Your task to perform on an android device: Clear the cart on bestbuy. Search for "usb-a" on bestbuy, select the first entry, and add it to the cart. Image 0: 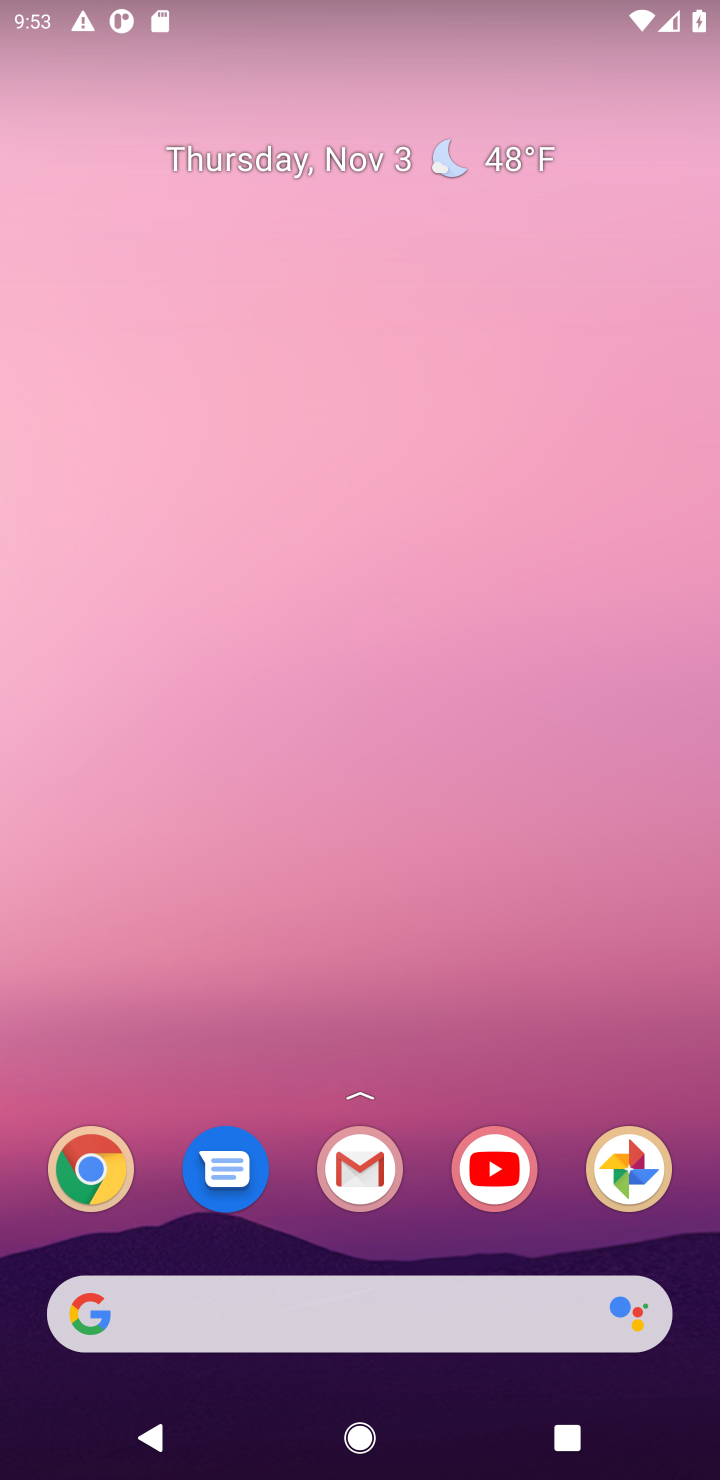
Step 0: drag from (431, 1263) to (453, 257)
Your task to perform on an android device: Clear the cart on bestbuy. Search for "usb-a" on bestbuy, select the first entry, and add it to the cart. Image 1: 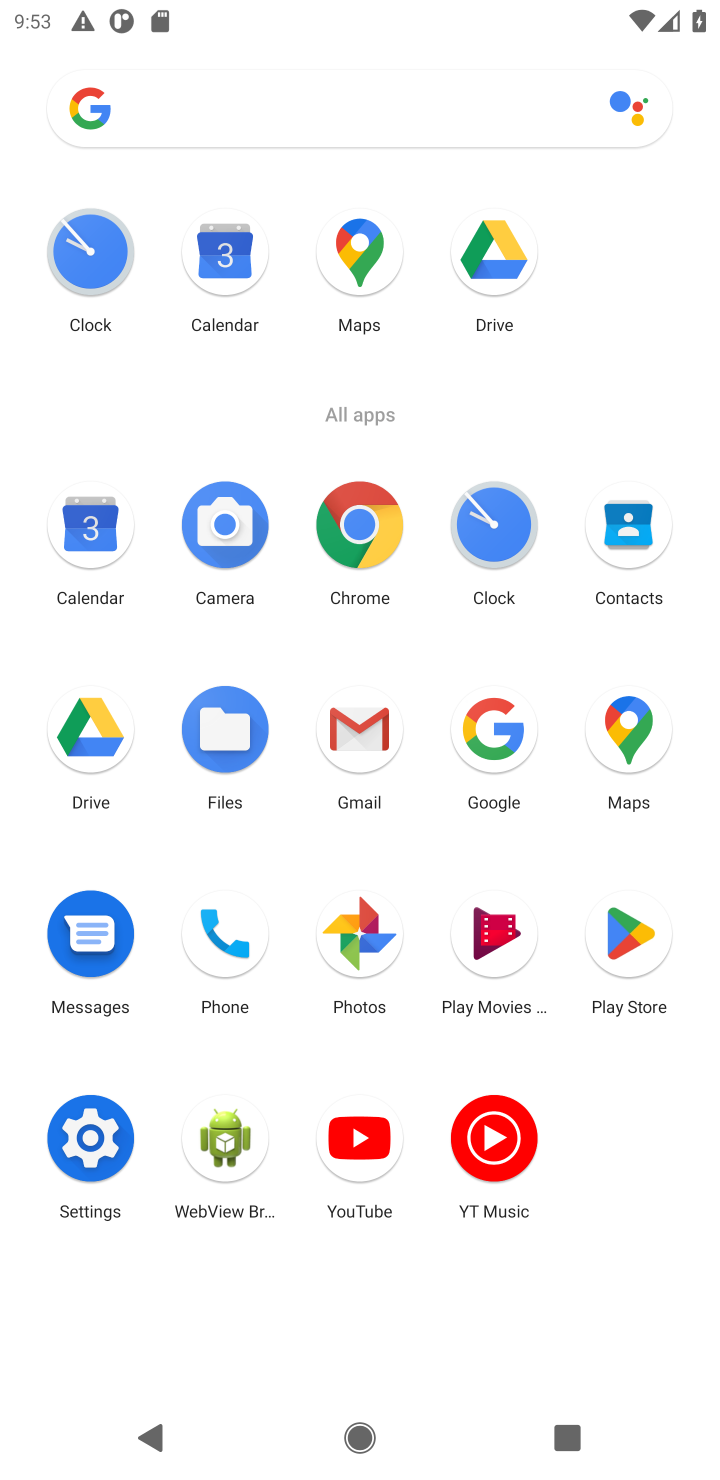
Step 1: click (354, 527)
Your task to perform on an android device: Clear the cart on bestbuy. Search for "usb-a" on bestbuy, select the first entry, and add it to the cart. Image 2: 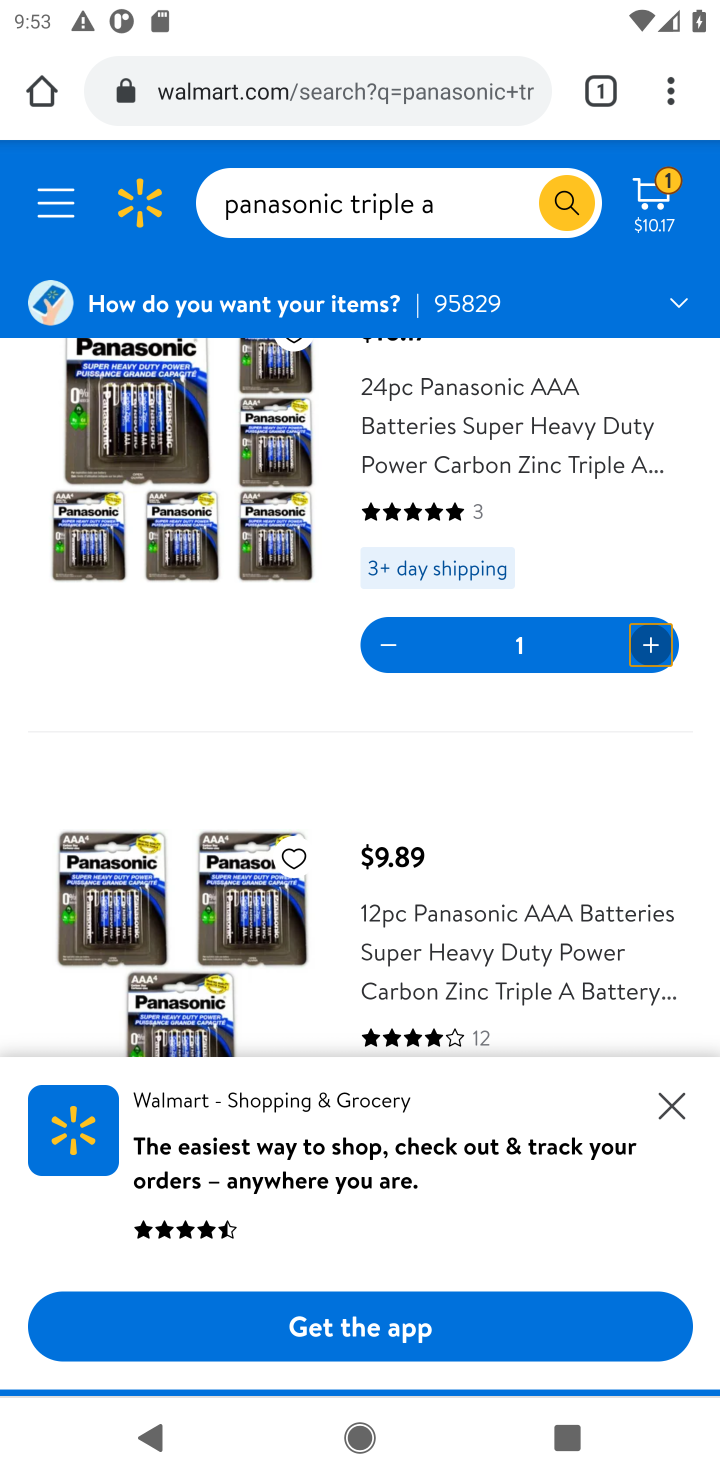
Step 2: click (345, 104)
Your task to perform on an android device: Clear the cart on bestbuy. Search for "usb-a" on bestbuy, select the first entry, and add it to the cart. Image 3: 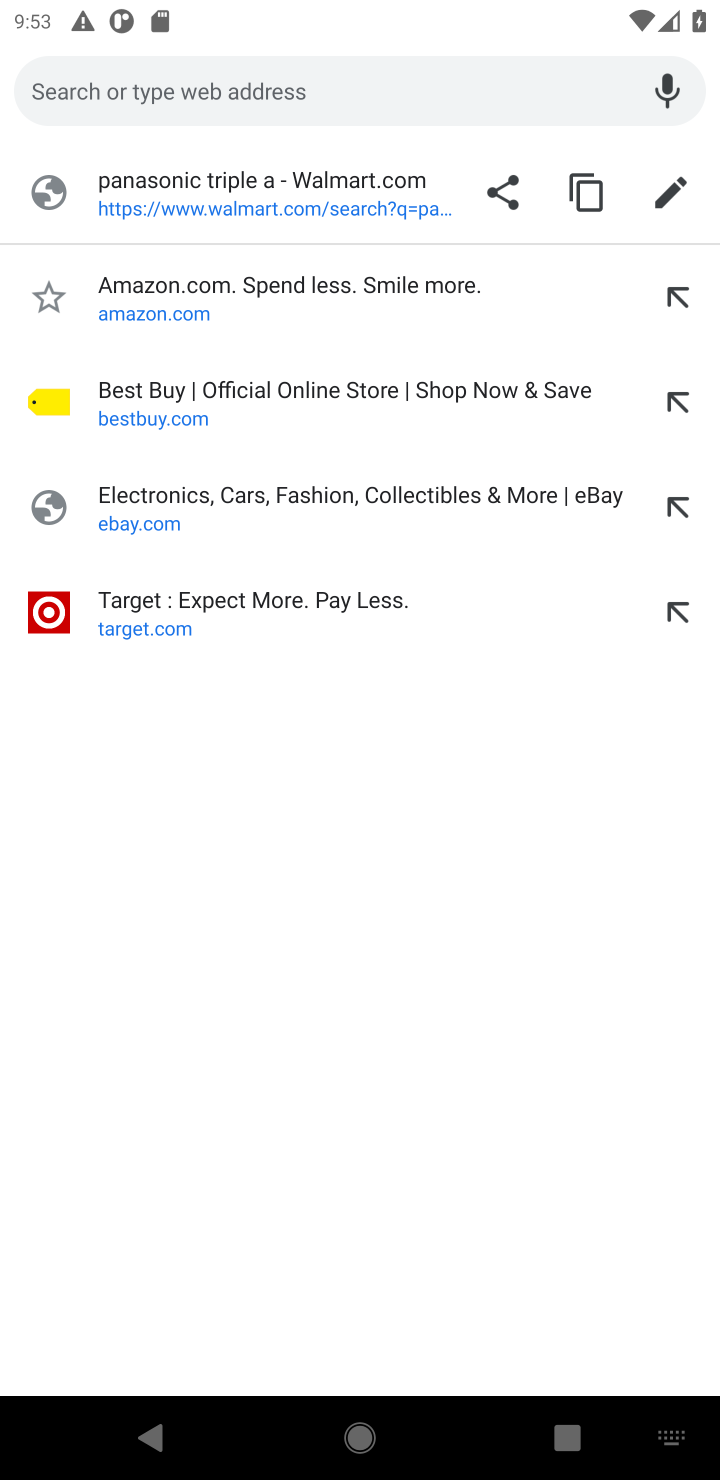
Step 3: type "bestbuy.com"
Your task to perform on an android device: Clear the cart on bestbuy. Search for "usb-a" on bestbuy, select the first entry, and add it to the cart. Image 4: 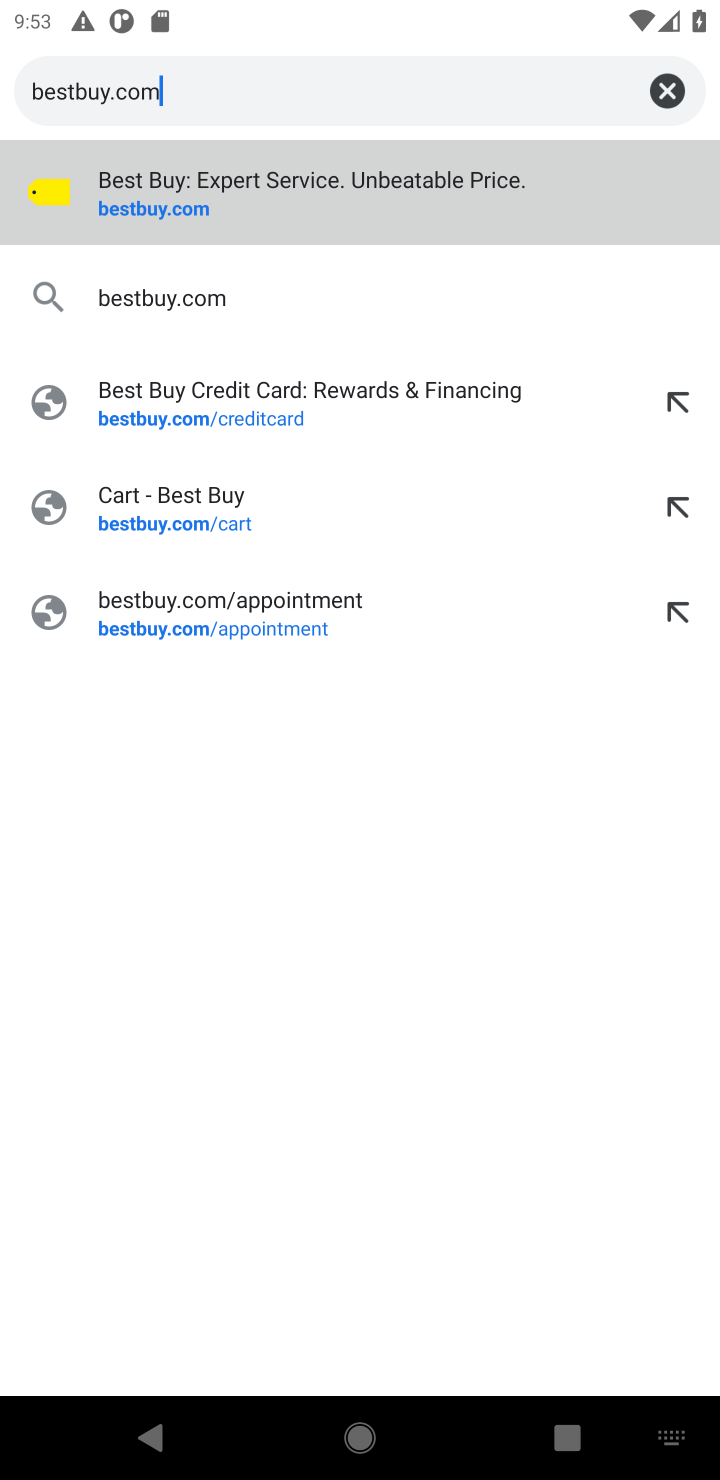
Step 4: press enter
Your task to perform on an android device: Clear the cart on bestbuy. Search for "usb-a" on bestbuy, select the first entry, and add it to the cart. Image 5: 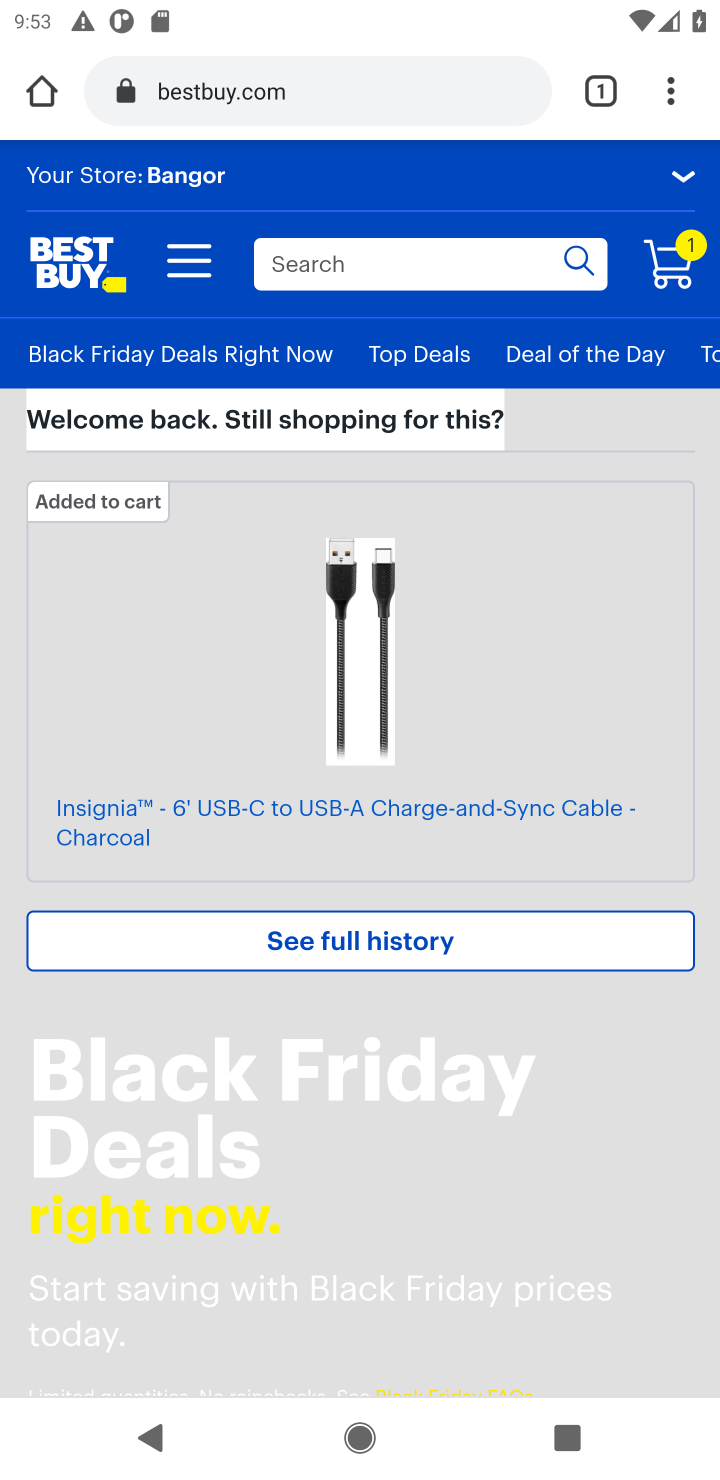
Step 5: click (681, 244)
Your task to perform on an android device: Clear the cart on bestbuy. Search for "usb-a" on bestbuy, select the first entry, and add it to the cart. Image 6: 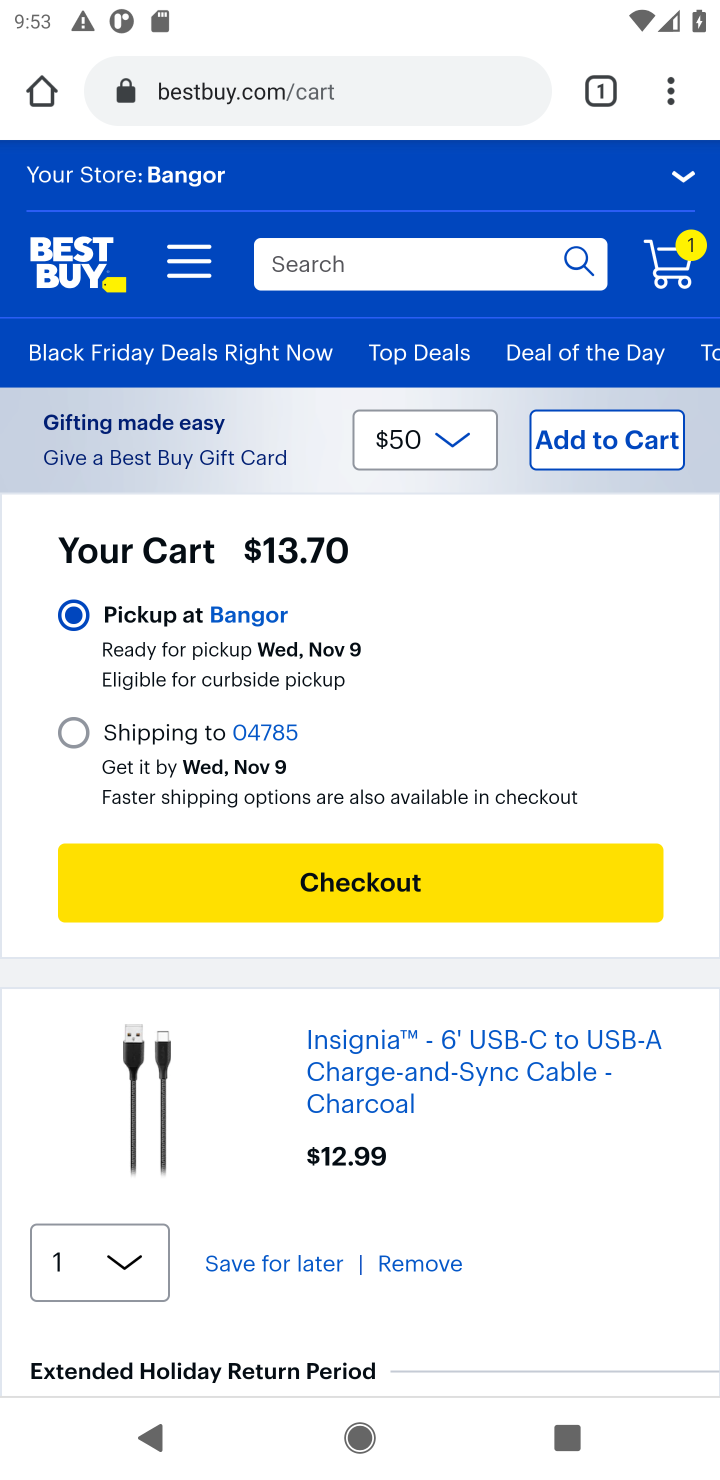
Step 6: drag from (489, 1209) to (529, 921)
Your task to perform on an android device: Clear the cart on bestbuy. Search for "usb-a" on bestbuy, select the first entry, and add it to the cart. Image 7: 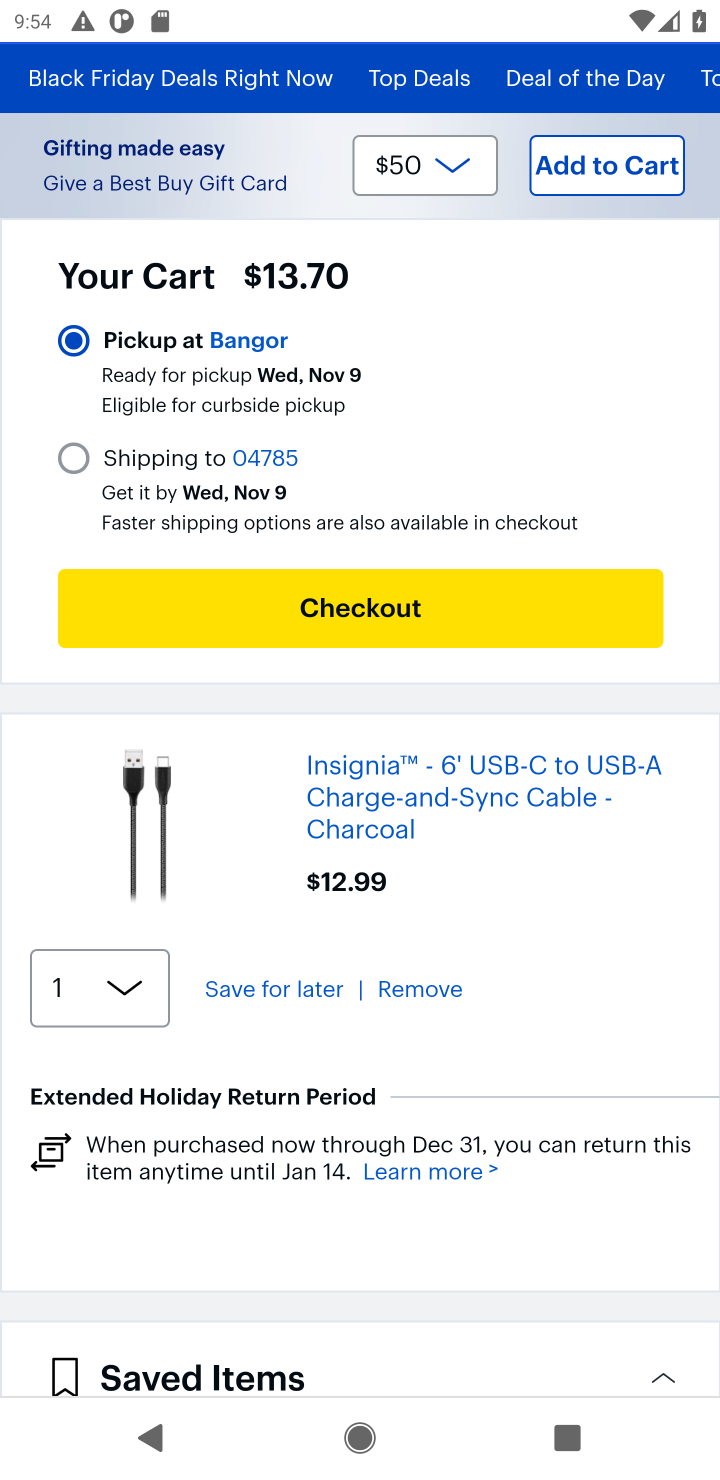
Step 7: click (399, 995)
Your task to perform on an android device: Clear the cart on bestbuy. Search for "usb-a" on bestbuy, select the first entry, and add it to the cart. Image 8: 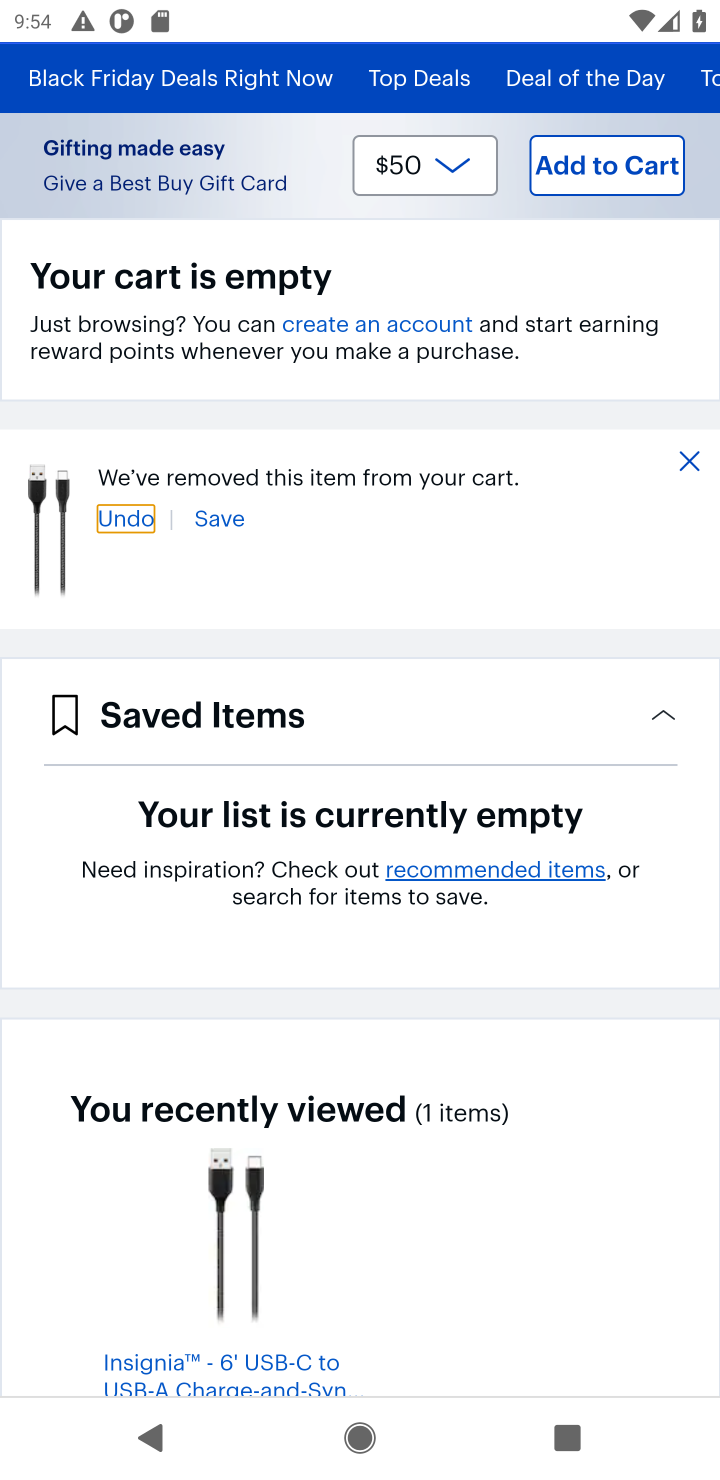
Step 8: drag from (511, 319) to (532, 1130)
Your task to perform on an android device: Clear the cart on bestbuy. Search for "usb-a" on bestbuy, select the first entry, and add it to the cart. Image 9: 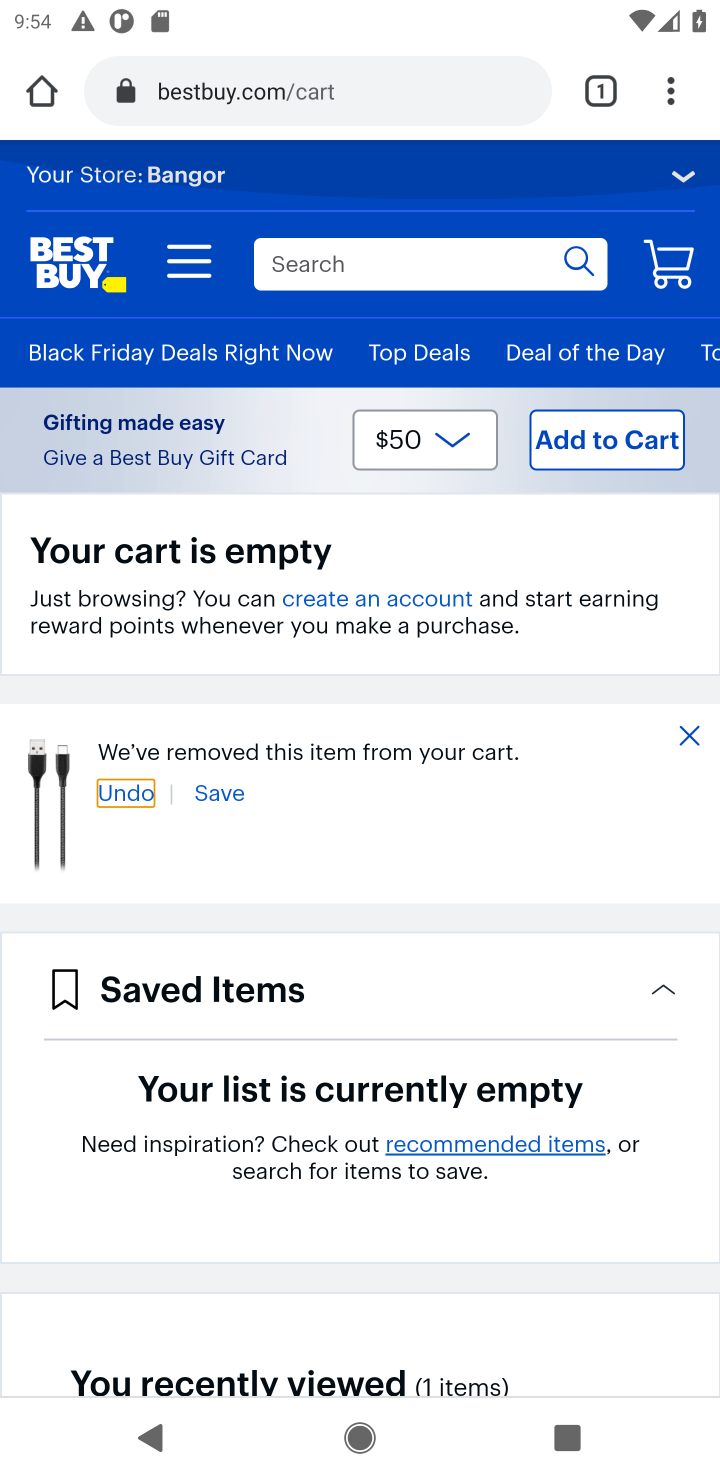
Step 9: click (459, 261)
Your task to perform on an android device: Clear the cart on bestbuy. Search for "usb-a" on bestbuy, select the first entry, and add it to the cart. Image 10: 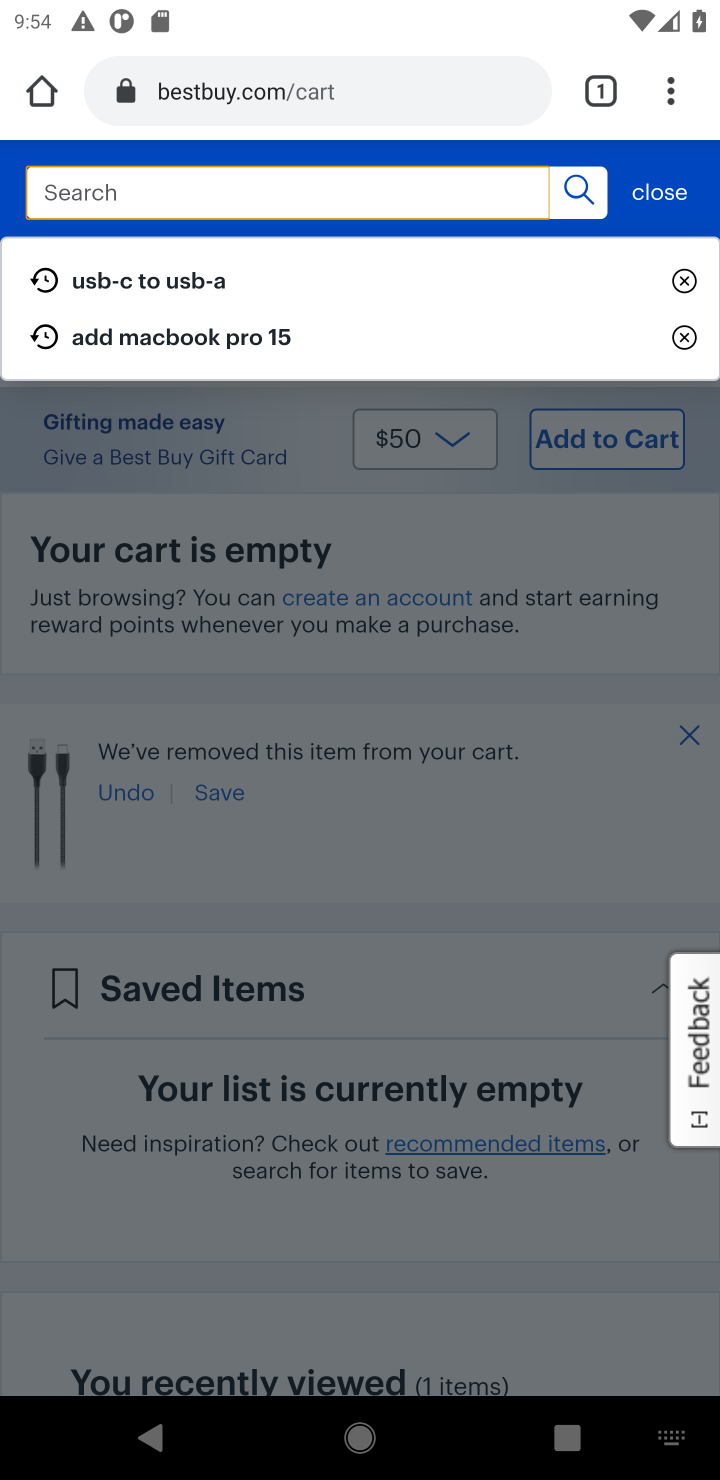
Step 10: type "usb-a"
Your task to perform on an android device: Clear the cart on bestbuy. Search for "usb-a" on bestbuy, select the first entry, and add it to the cart. Image 11: 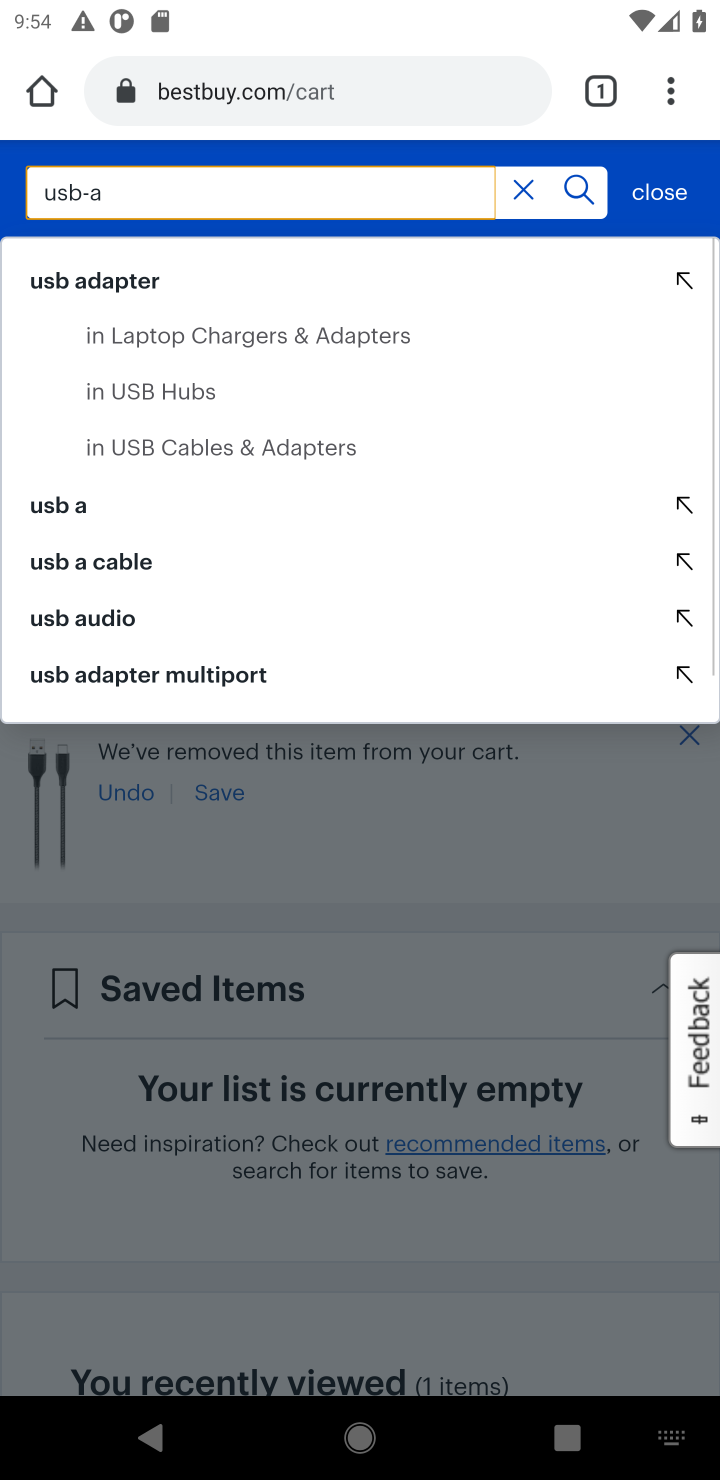
Step 11: press enter
Your task to perform on an android device: Clear the cart on bestbuy. Search for "usb-a" on bestbuy, select the first entry, and add it to the cart. Image 12: 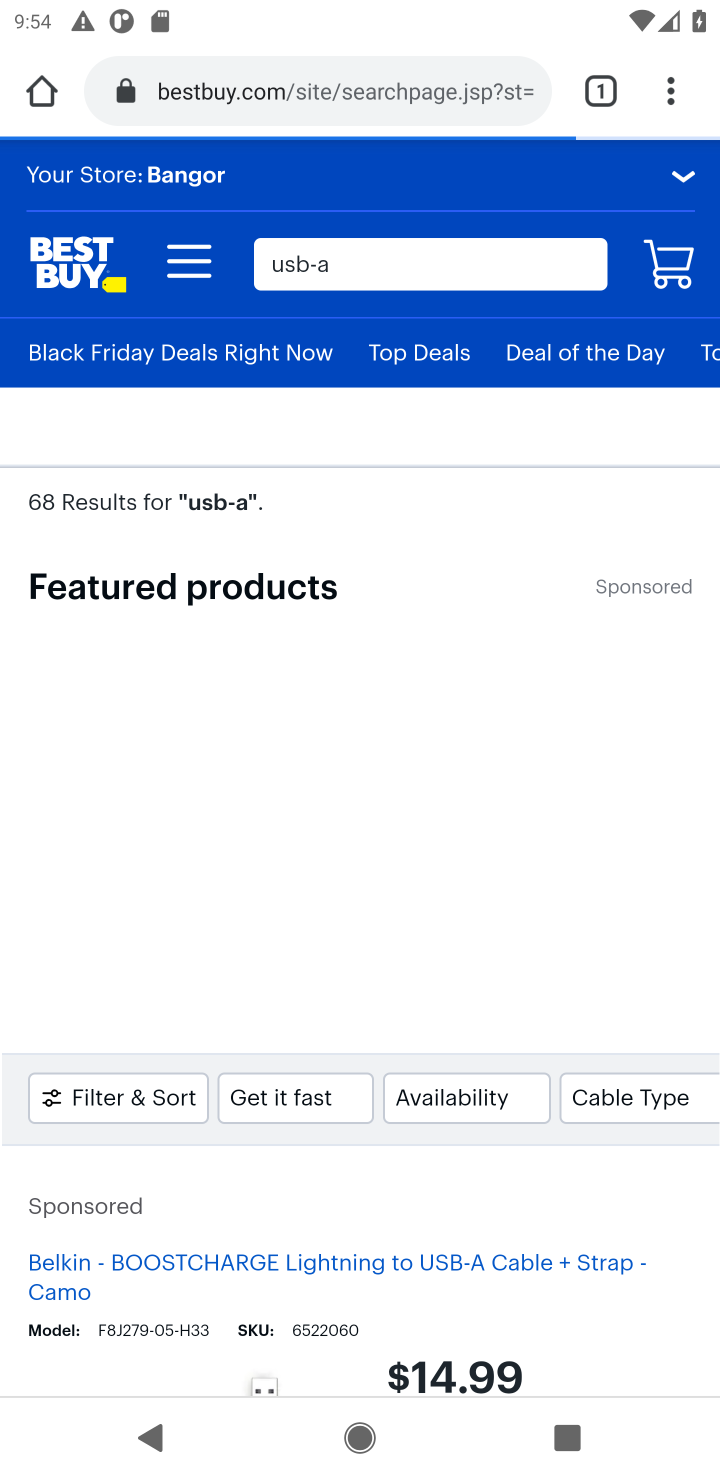
Step 12: drag from (460, 1260) to (499, 269)
Your task to perform on an android device: Clear the cart on bestbuy. Search for "usb-a" on bestbuy, select the first entry, and add it to the cart. Image 13: 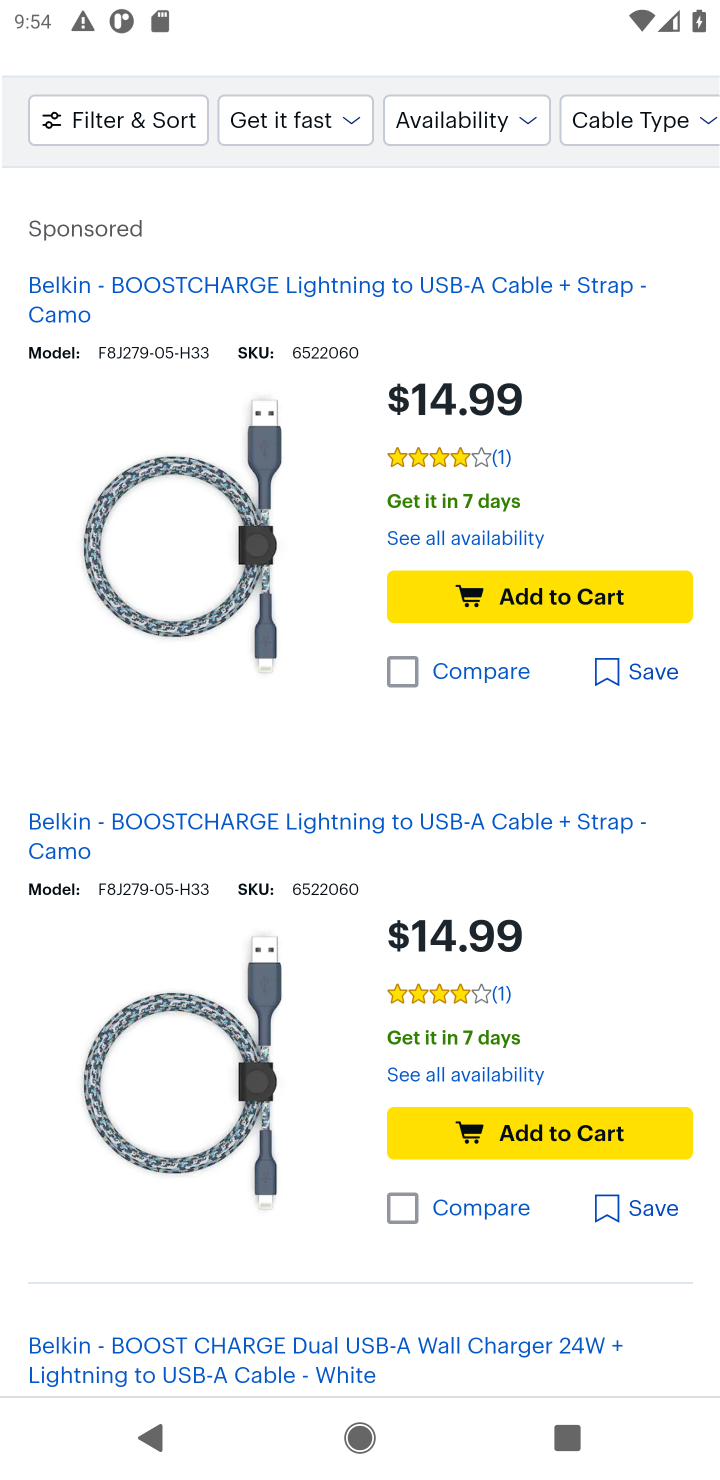
Step 13: click (568, 1135)
Your task to perform on an android device: Clear the cart on bestbuy. Search for "usb-a" on bestbuy, select the first entry, and add it to the cart. Image 14: 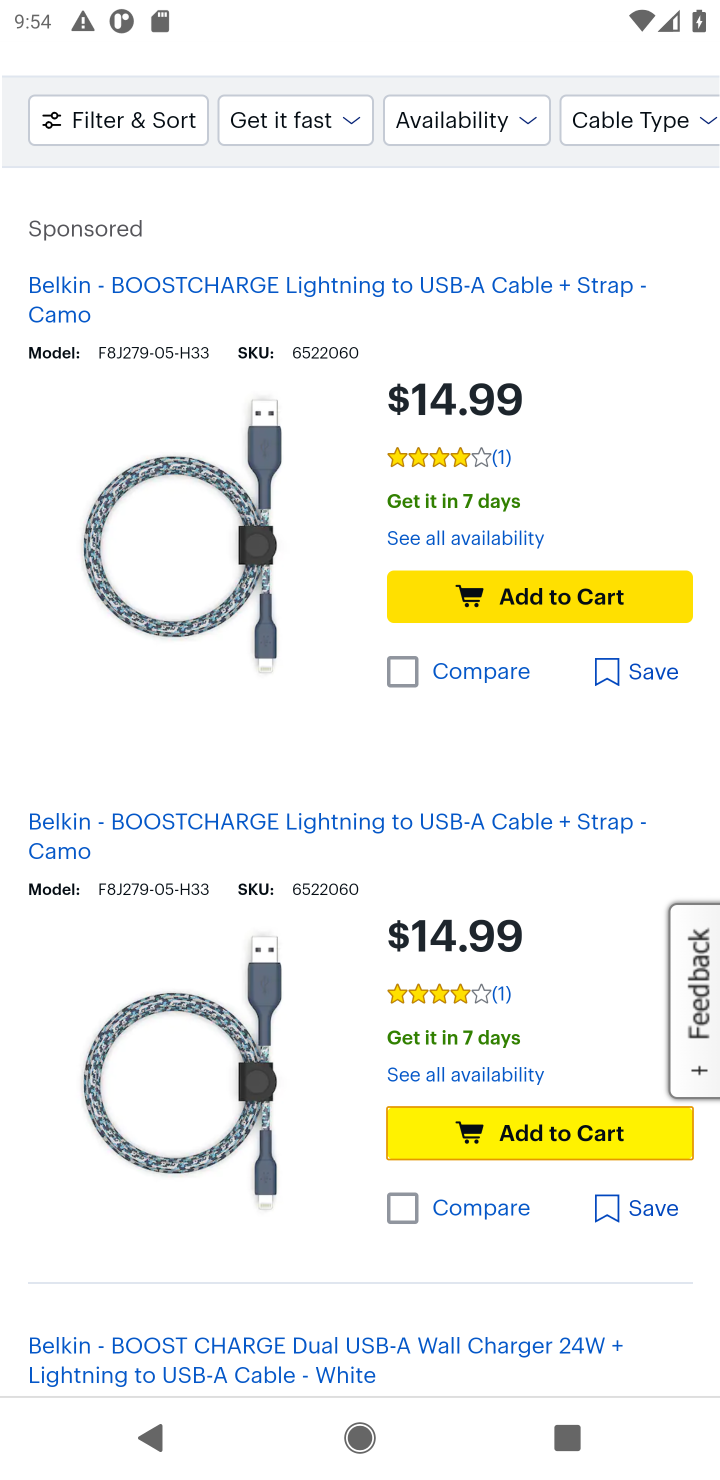
Step 14: click (568, 1135)
Your task to perform on an android device: Clear the cart on bestbuy. Search for "usb-a" on bestbuy, select the first entry, and add it to the cart. Image 15: 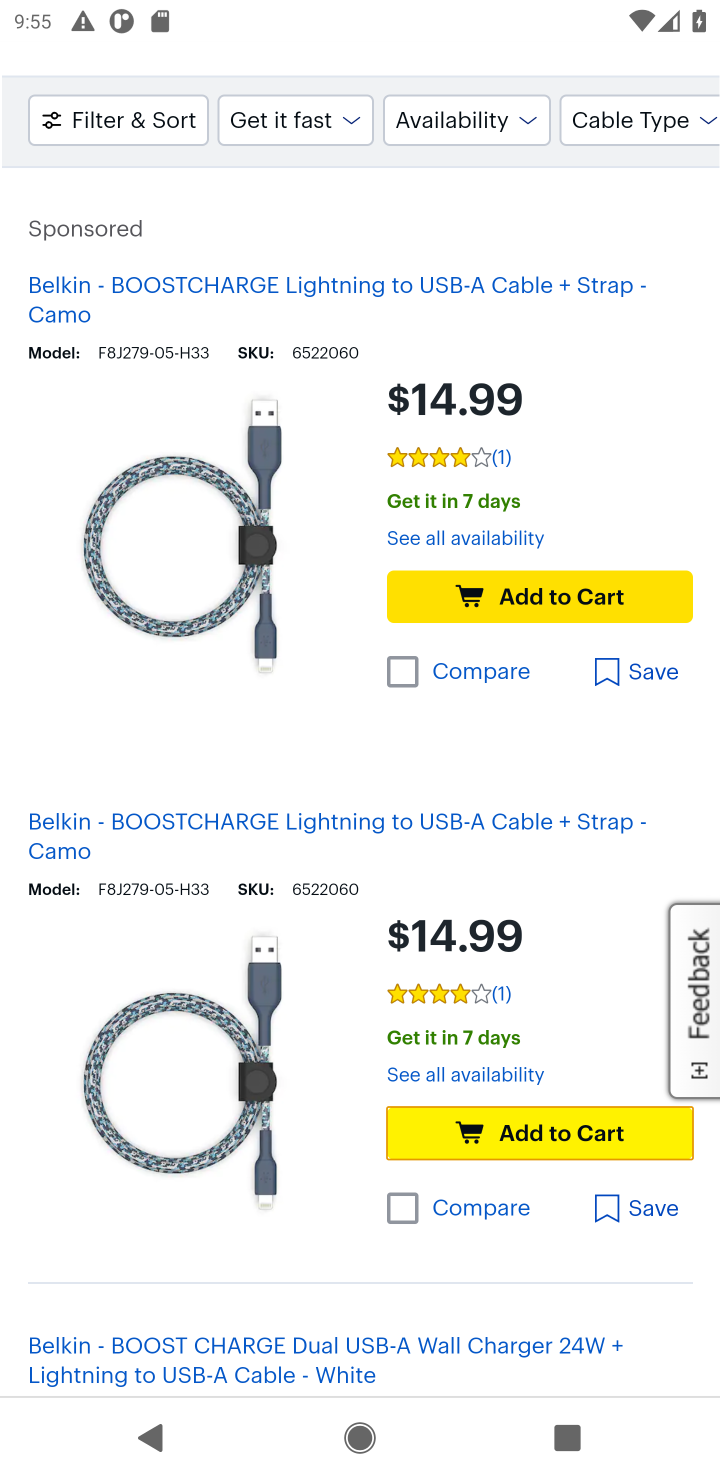
Step 15: drag from (165, 914) to (362, 706)
Your task to perform on an android device: Clear the cart on bestbuy. Search for "usb-a" on bestbuy, select the first entry, and add it to the cart. Image 16: 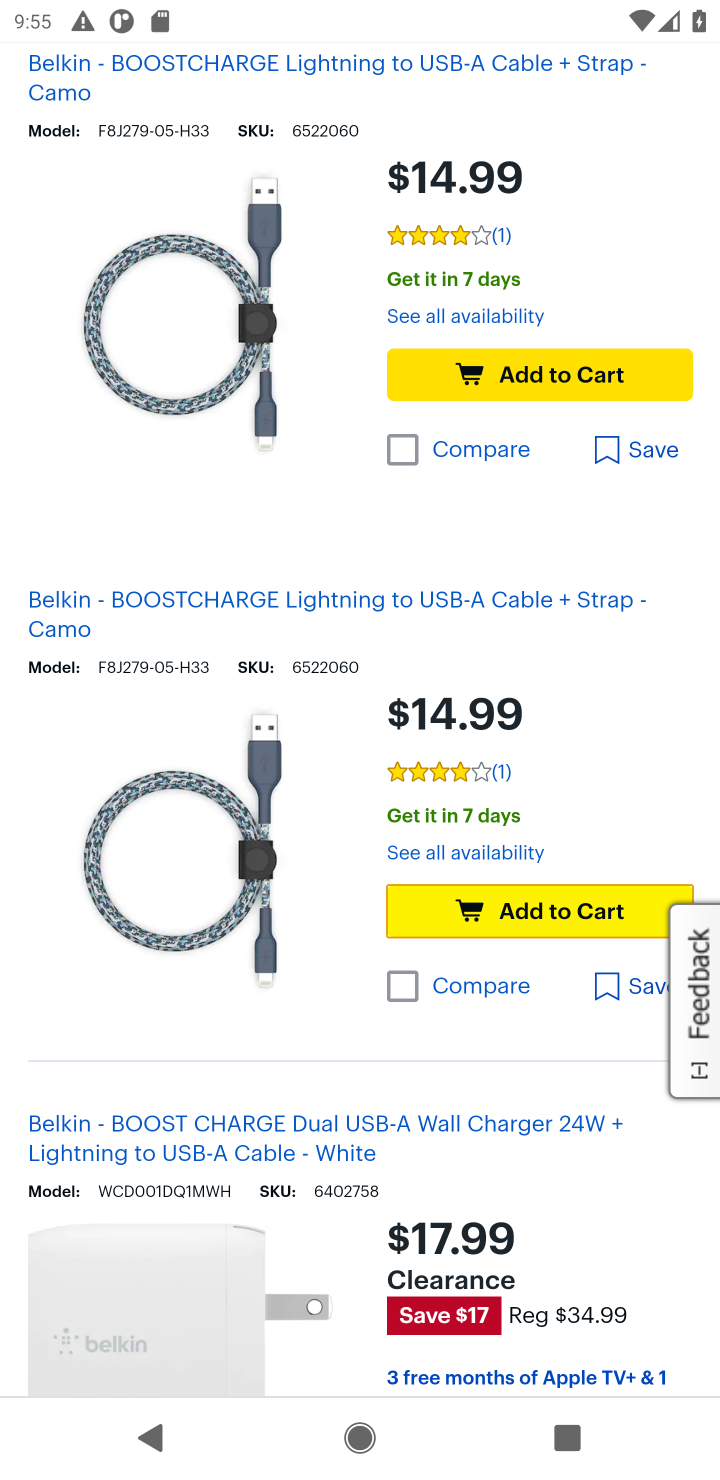
Step 16: click (547, 916)
Your task to perform on an android device: Clear the cart on bestbuy. Search for "usb-a" on bestbuy, select the first entry, and add it to the cart. Image 17: 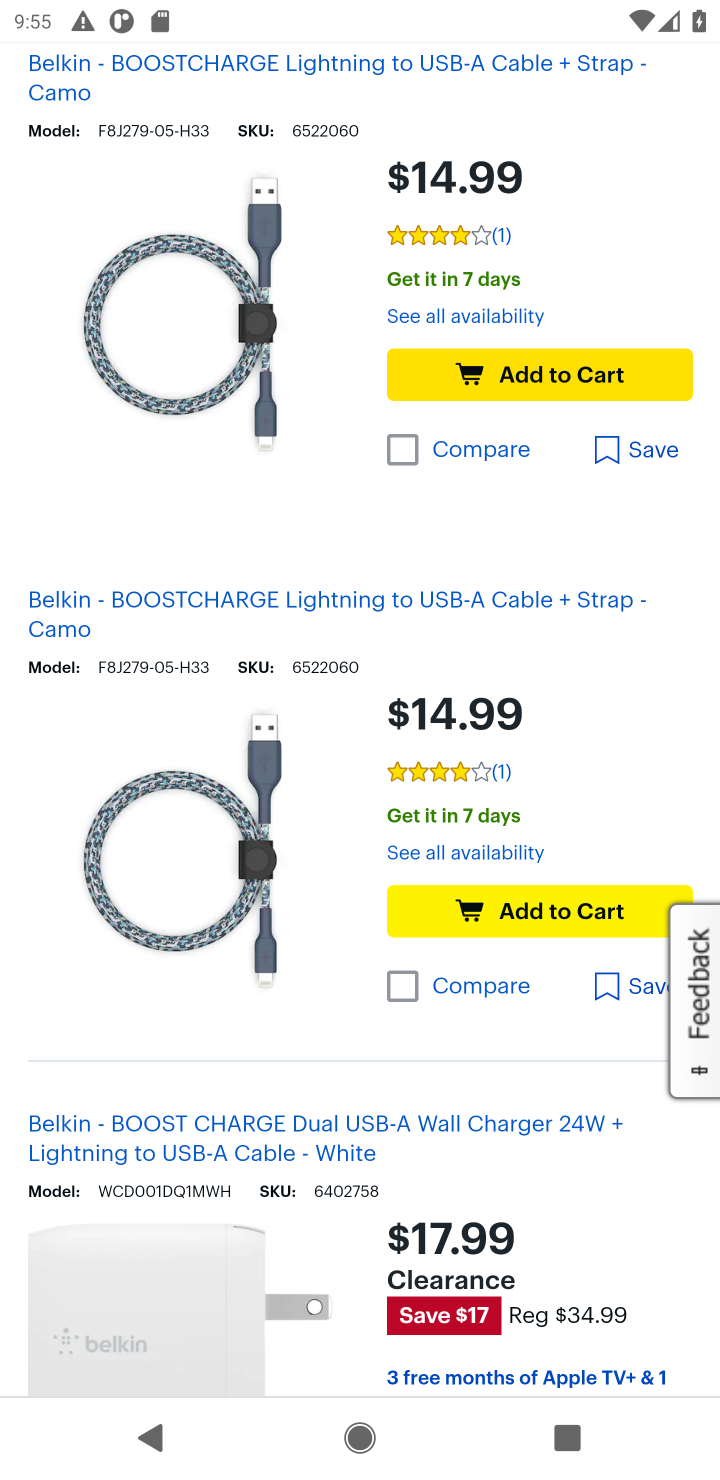
Step 17: task complete